Your task to perform on an android device: Search for sushi restaurants on Maps Image 0: 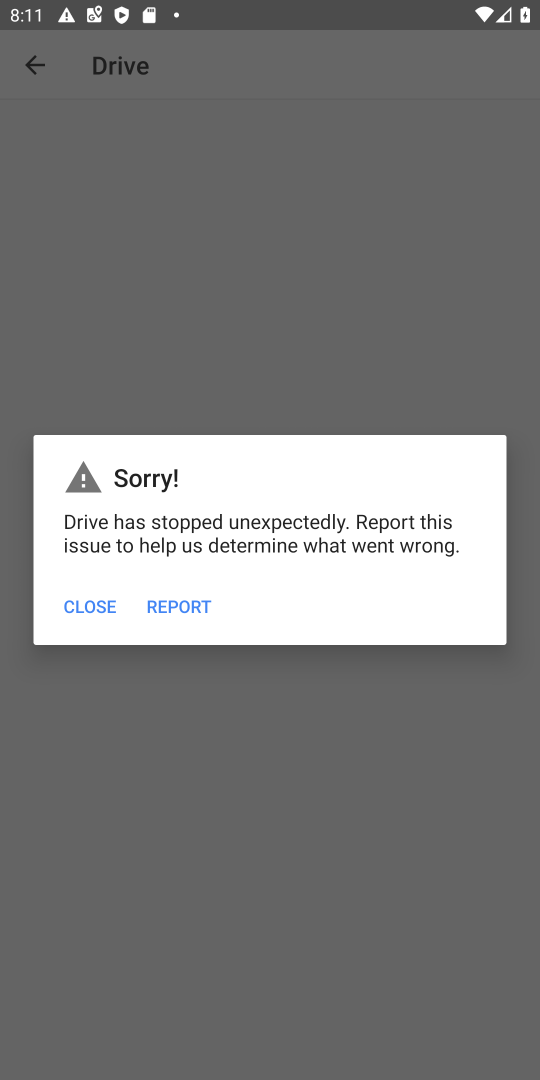
Step 0: press home button
Your task to perform on an android device: Search for sushi restaurants on Maps Image 1: 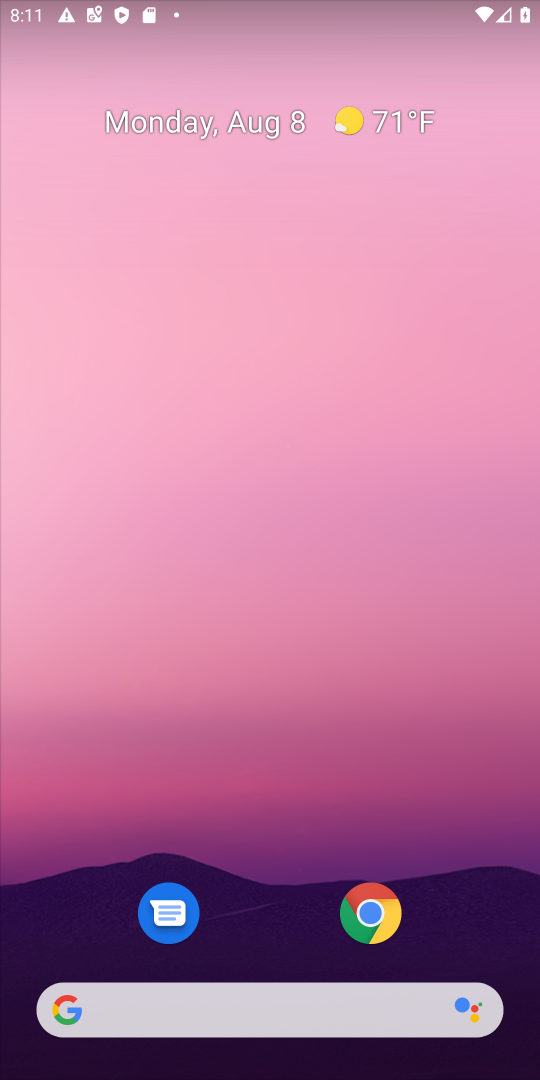
Step 1: drag from (228, 1015) to (348, 222)
Your task to perform on an android device: Search for sushi restaurants on Maps Image 2: 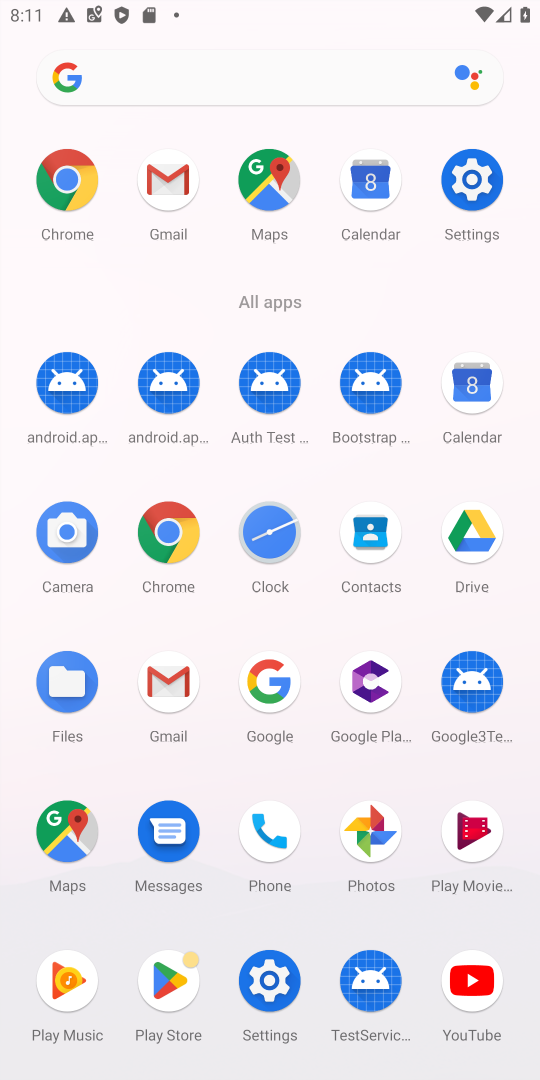
Step 2: click (268, 179)
Your task to perform on an android device: Search for sushi restaurants on Maps Image 3: 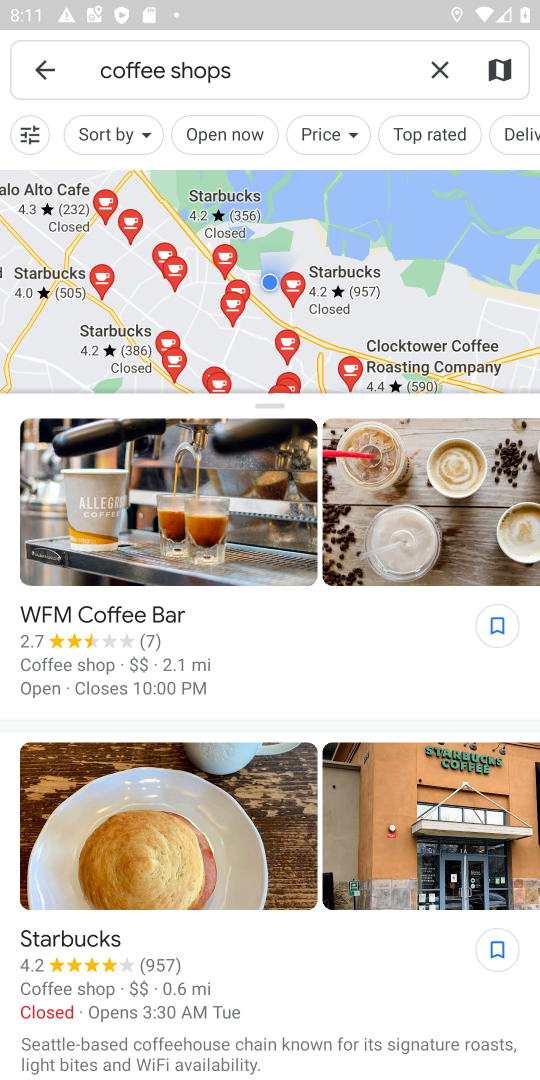
Step 3: click (441, 68)
Your task to perform on an android device: Search for sushi restaurants on Maps Image 4: 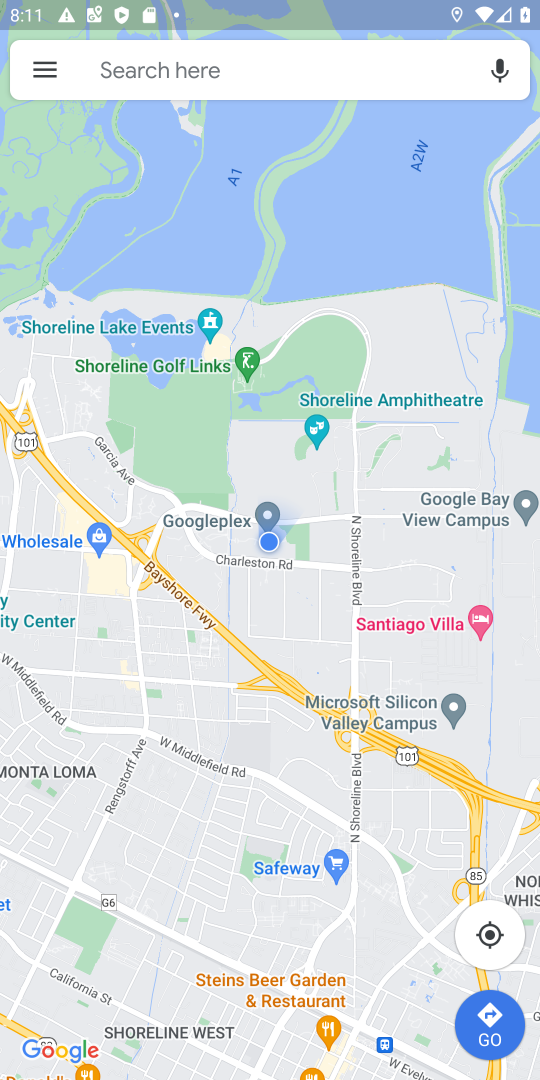
Step 4: click (319, 74)
Your task to perform on an android device: Search for sushi restaurants on Maps Image 5: 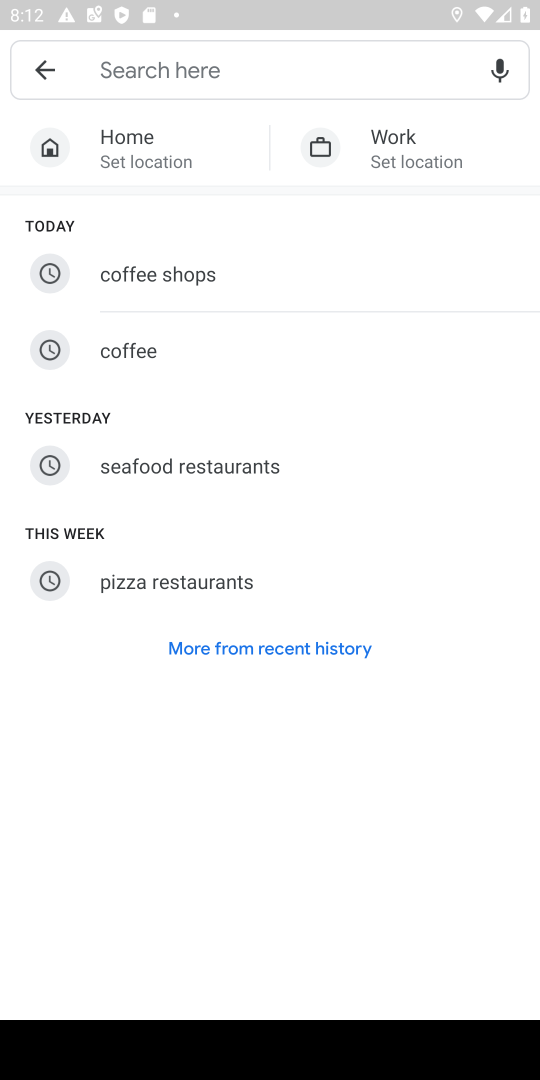
Step 5: type "sushi restaurants"
Your task to perform on an android device: Search for sushi restaurants on Maps Image 6: 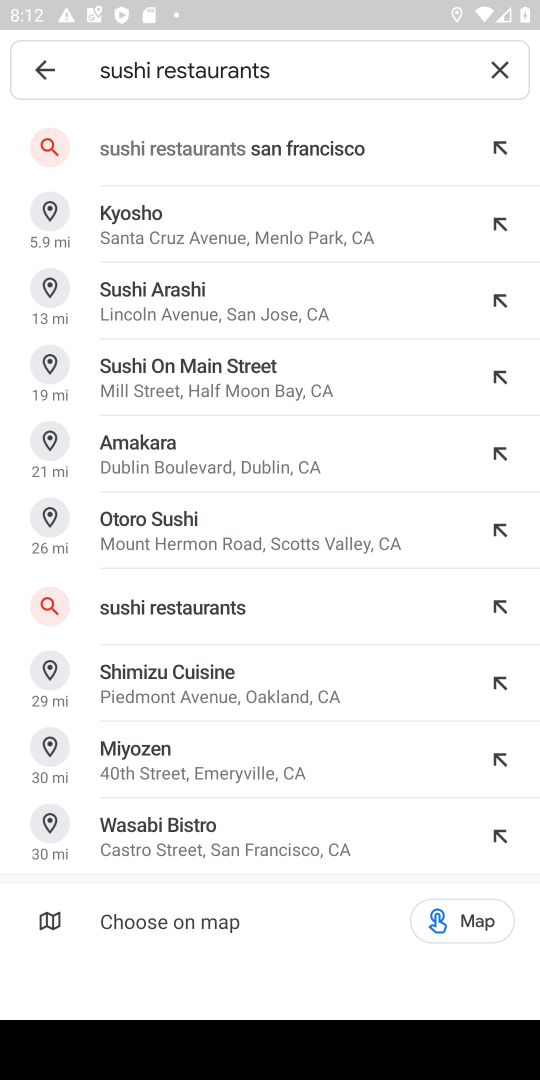
Step 6: click (213, 604)
Your task to perform on an android device: Search for sushi restaurants on Maps Image 7: 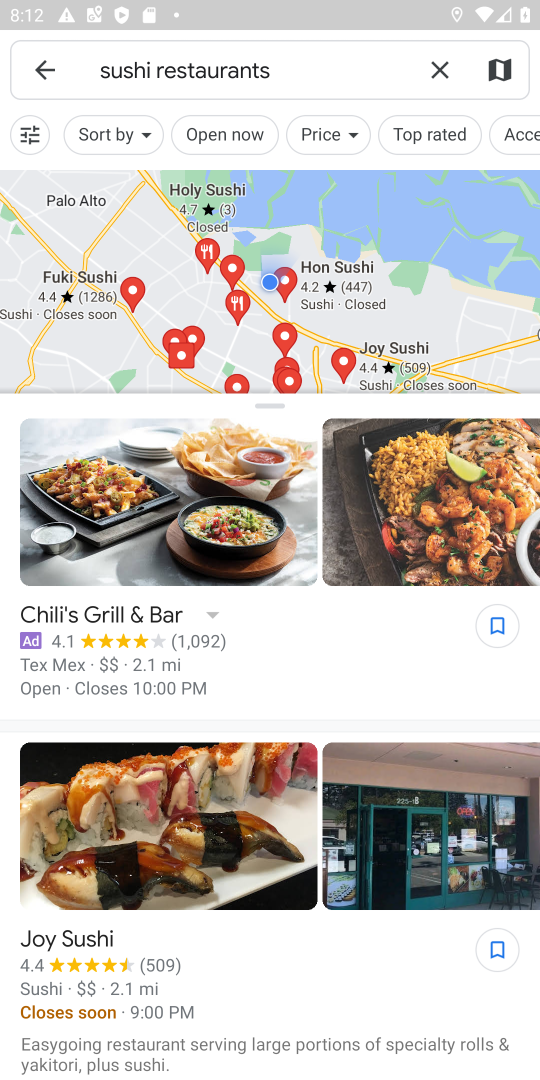
Step 7: task complete